Your task to perform on an android device: Go to ESPN.com Image 0: 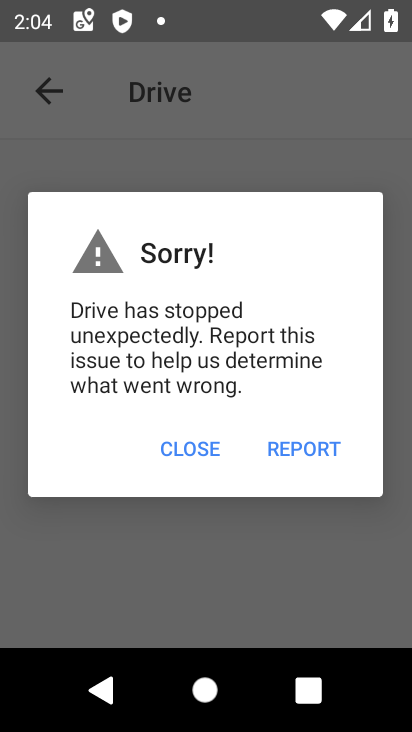
Step 0: press home button
Your task to perform on an android device: Go to ESPN.com Image 1: 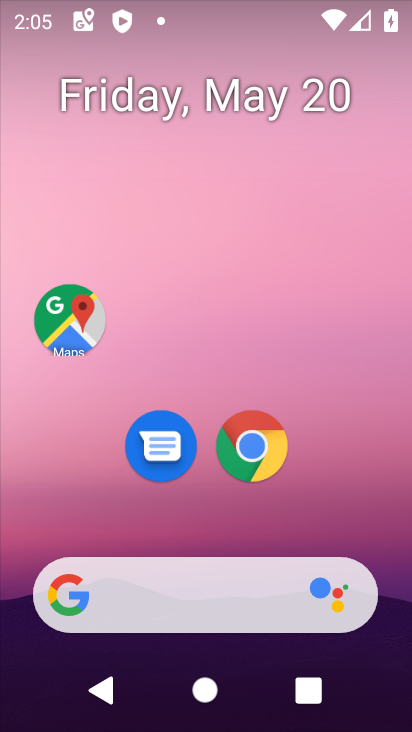
Step 1: click (245, 450)
Your task to perform on an android device: Go to ESPN.com Image 2: 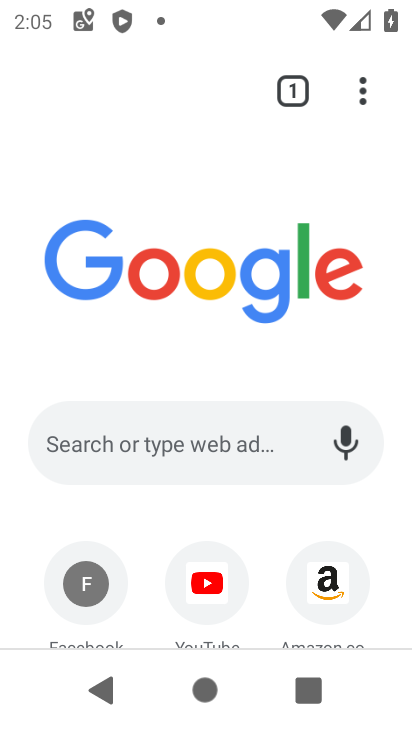
Step 2: drag from (380, 515) to (385, 221)
Your task to perform on an android device: Go to ESPN.com Image 3: 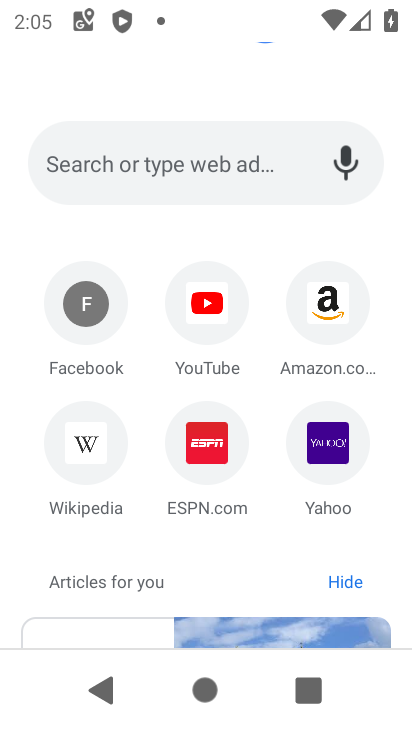
Step 3: click (196, 443)
Your task to perform on an android device: Go to ESPN.com Image 4: 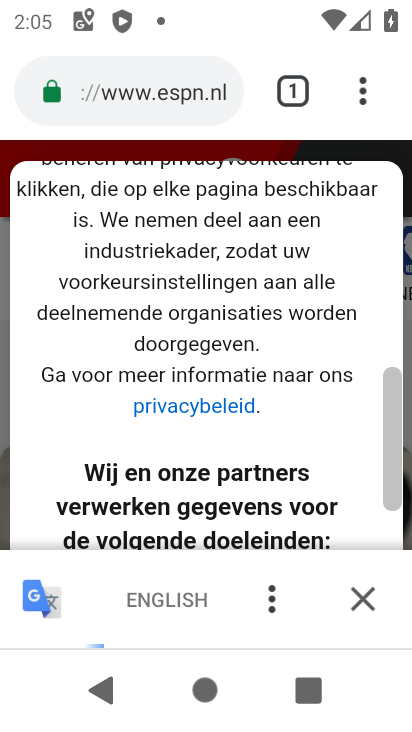
Step 4: task complete